Your task to perform on an android device: Open Youtube and go to "Your channel" Image 0: 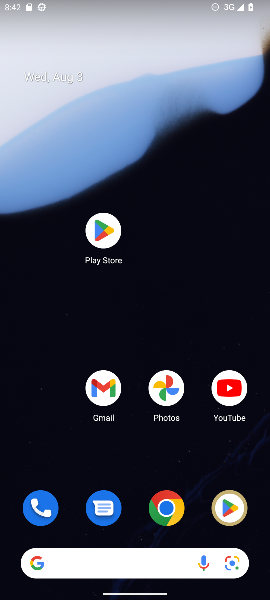
Step 0: drag from (124, 542) to (80, 79)
Your task to perform on an android device: Open Youtube and go to "Your channel" Image 1: 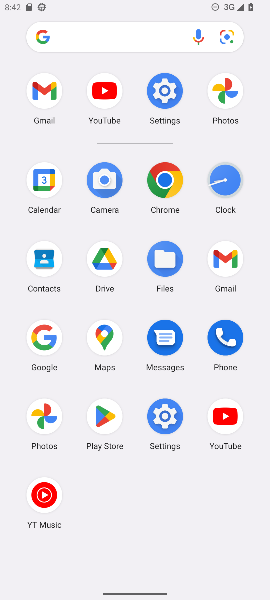
Step 1: click (225, 421)
Your task to perform on an android device: Open Youtube and go to "Your channel" Image 2: 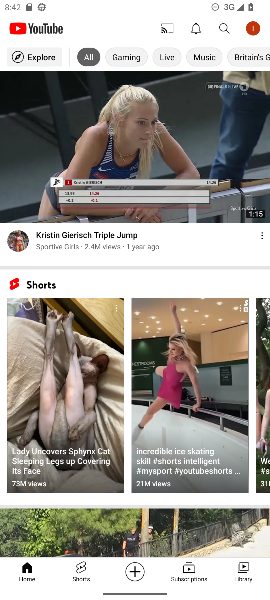
Step 2: click (249, 21)
Your task to perform on an android device: Open Youtube and go to "Your channel" Image 3: 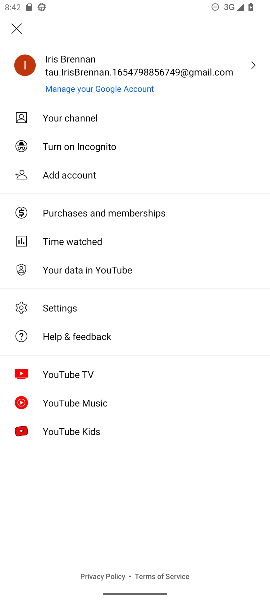
Step 3: click (42, 119)
Your task to perform on an android device: Open Youtube and go to "Your channel" Image 4: 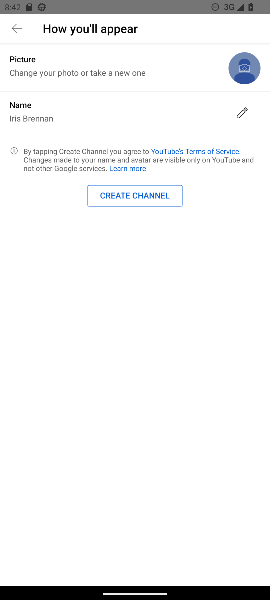
Step 4: task complete